Your task to perform on an android device: change keyboard looks Image 0: 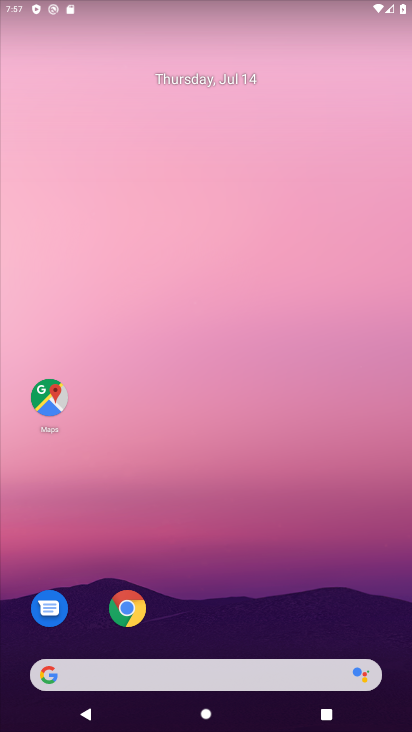
Step 0: drag from (294, 551) to (213, 47)
Your task to perform on an android device: change keyboard looks Image 1: 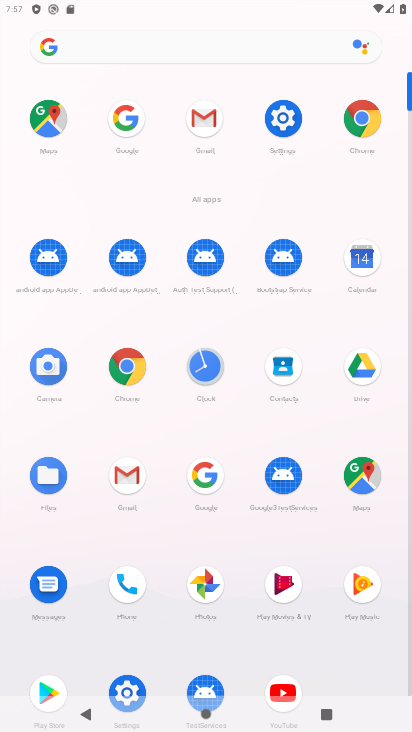
Step 1: click (277, 116)
Your task to perform on an android device: change keyboard looks Image 2: 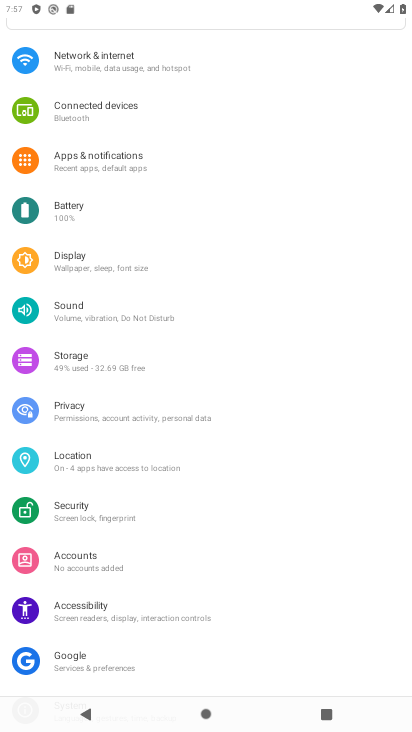
Step 2: drag from (245, 604) to (245, 206)
Your task to perform on an android device: change keyboard looks Image 3: 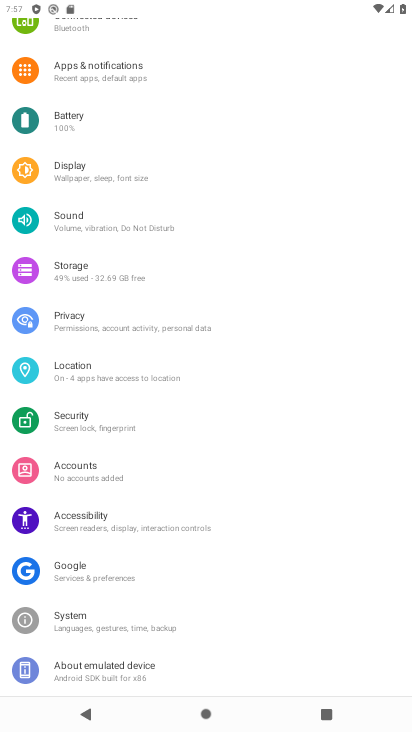
Step 3: click (65, 618)
Your task to perform on an android device: change keyboard looks Image 4: 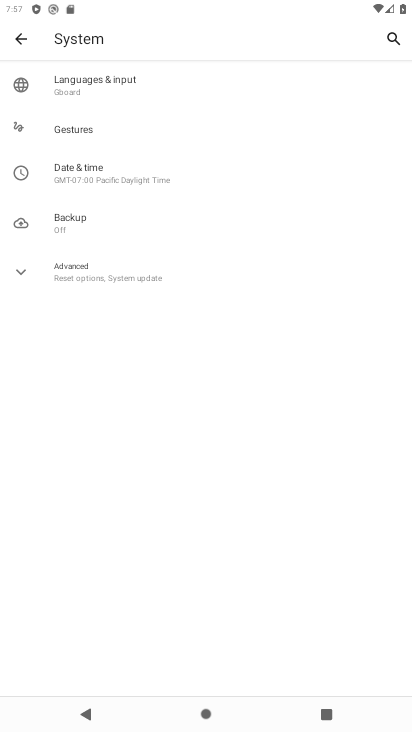
Step 4: click (74, 76)
Your task to perform on an android device: change keyboard looks Image 5: 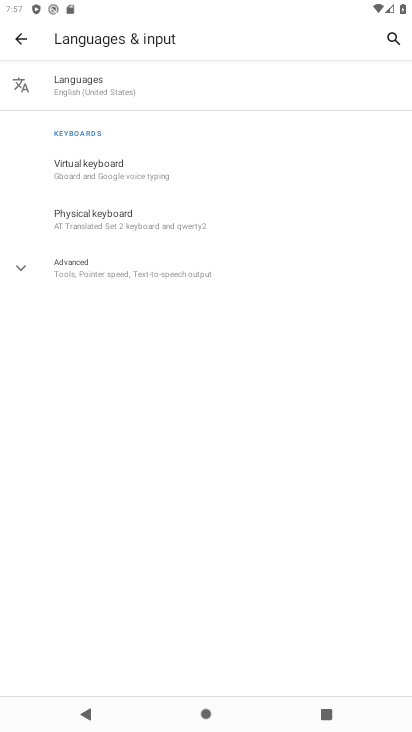
Step 5: click (88, 164)
Your task to perform on an android device: change keyboard looks Image 6: 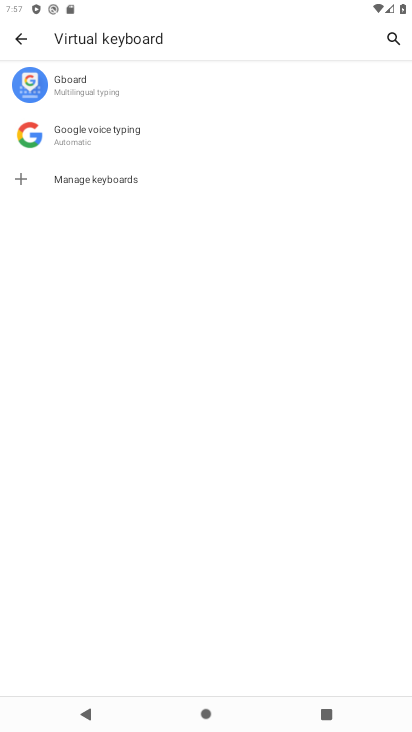
Step 6: click (62, 80)
Your task to perform on an android device: change keyboard looks Image 7: 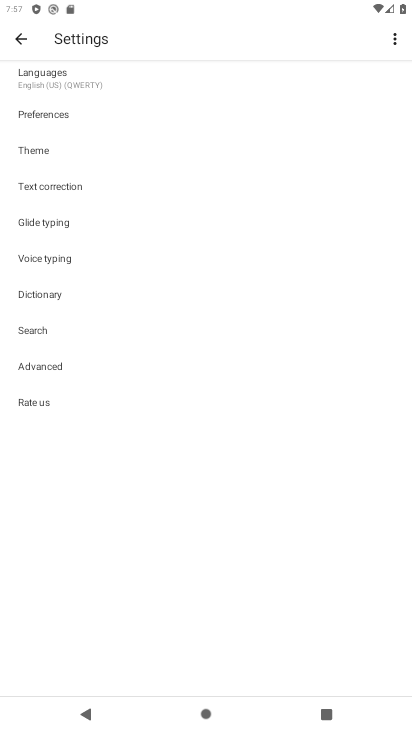
Step 7: click (42, 150)
Your task to perform on an android device: change keyboard looks Image 8: 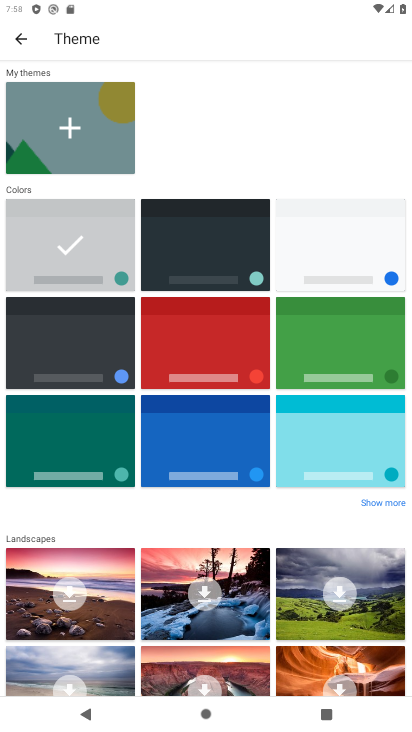
Step 8: click (184, 338)
Your task to perform on an android device: change keyboard looks Image 9: 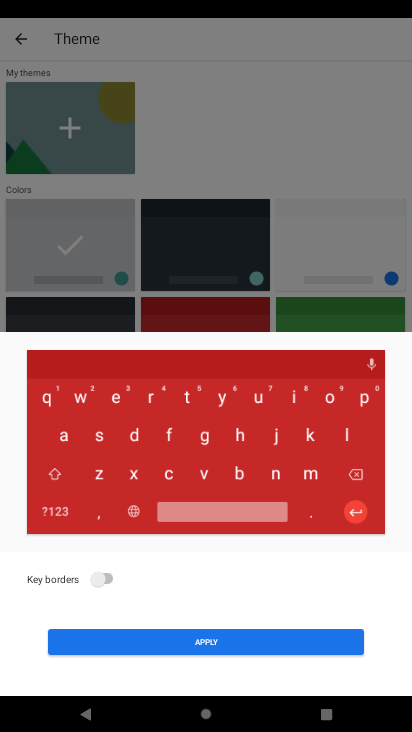
Step 9: click (219, 643)
Your task to perform on an android device: change keyboard looks Image 10: 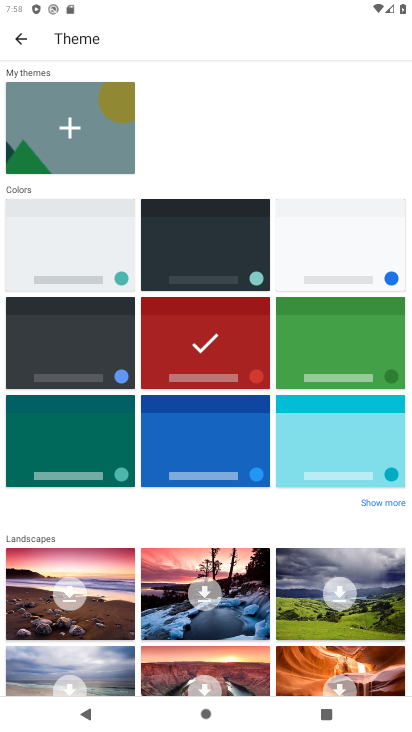
Step 10: task complete